Your task to perform on an android device: uninstall "Chime – Mobile Banking" Image 0: 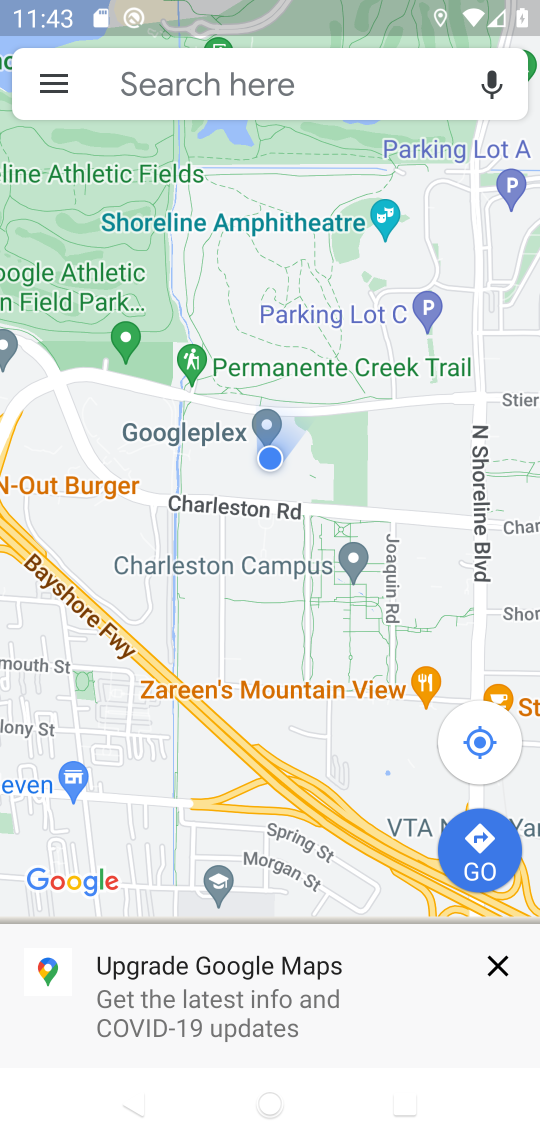
Step 0: press home button
Your task to perform on an android device: uninstall "Chime – Mobile Banking" Image 1: 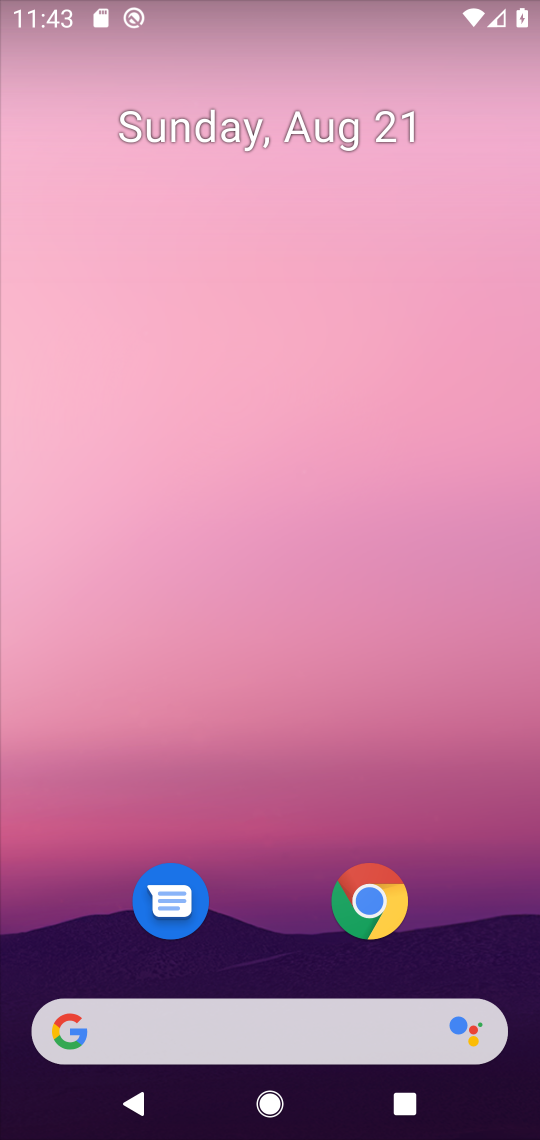
Step 1: drag from (264, 963) to (349, 102)
Your task to perform on an android device: uninstall "Chime – Mobile Banking" Image 2: 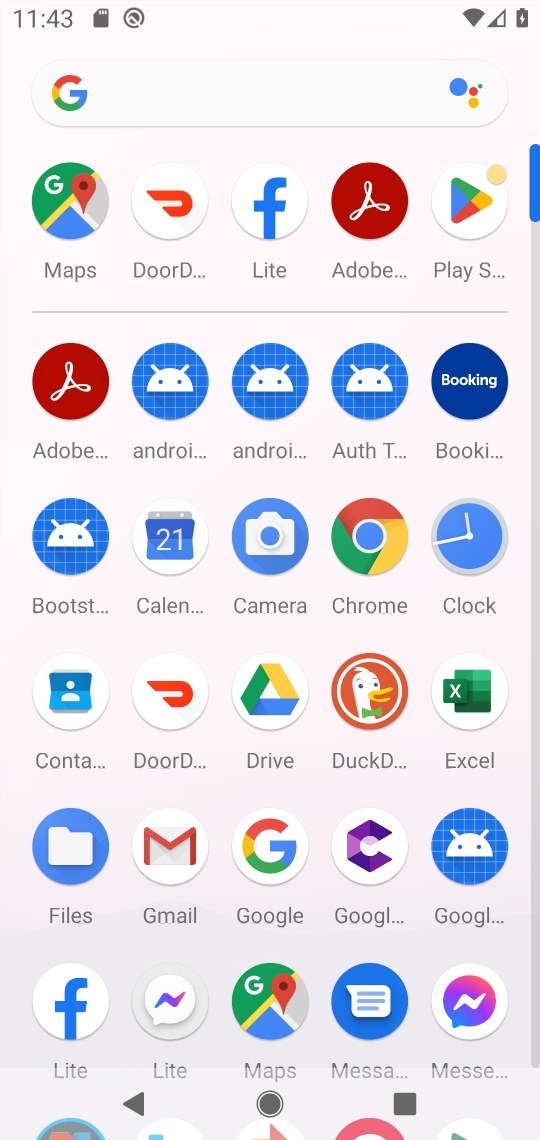
Step 2: click (446, 182)
Your task to perform on an android device: uninstall "Chime – Mobile Banking" Image 3: 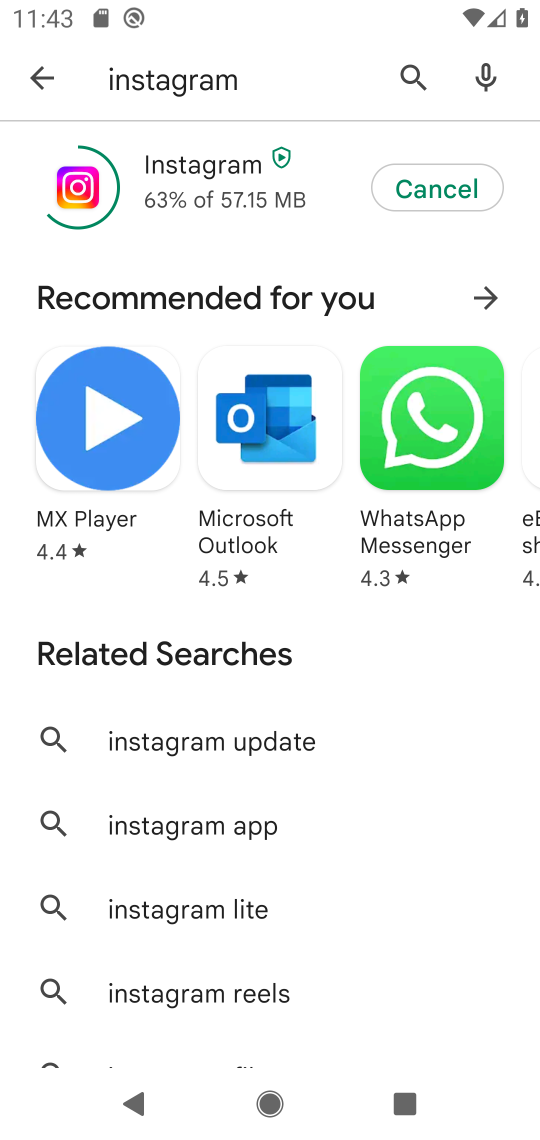
Step 3: click (414, 97)
Your task to perform on an android device: uninstall "Chime – Mobile Banking" Image 4: 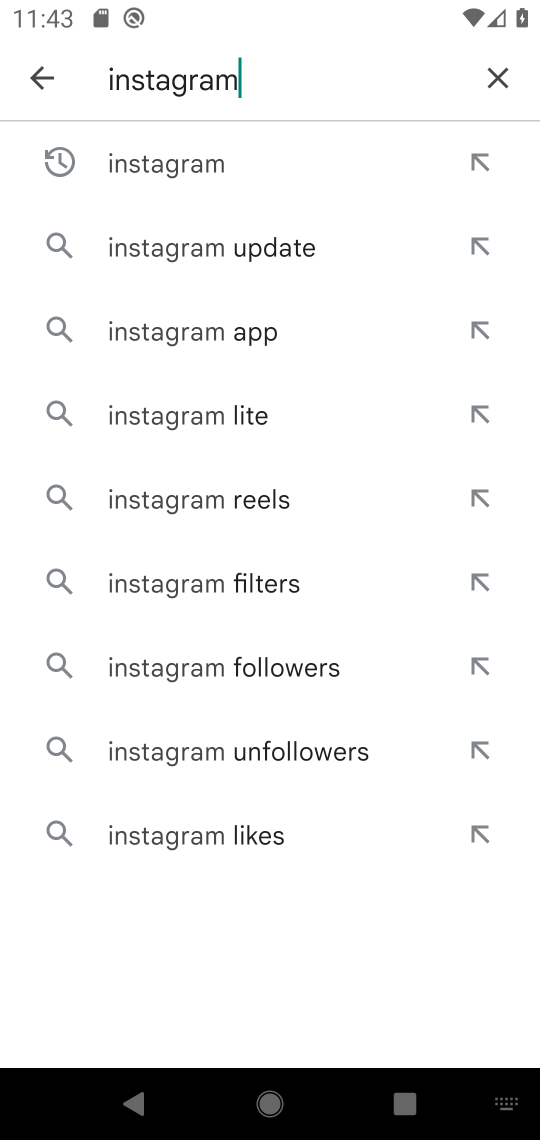
Step 4: click (481, 94)
Your task to perform on an android device: uninstall "Chime – Mobile Banking" Image 5: 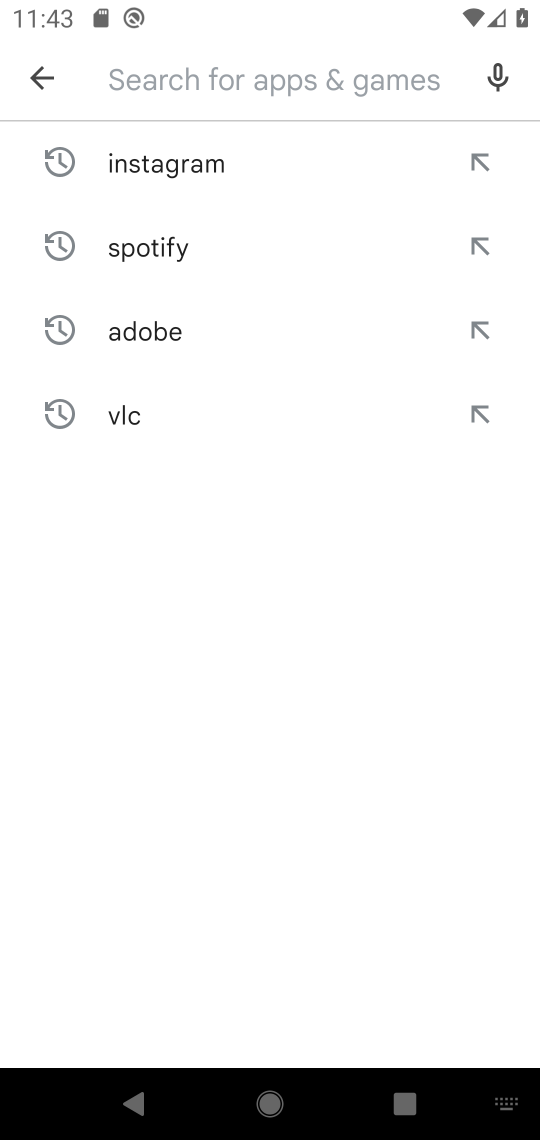
Step 5: type "chime"
Your task to perform on an android device: uninstall "Chime – Mobile Banking" Image 6: 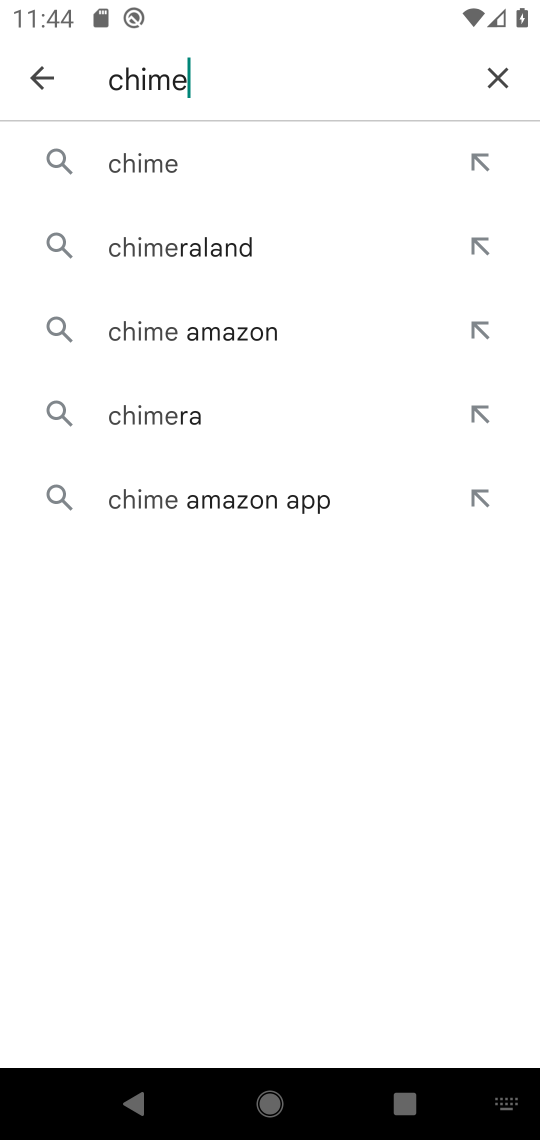
Step 6: click (164, 155)
Your task to perform on an android device: uninstall "Chime – Mobile Banking" Image 7: 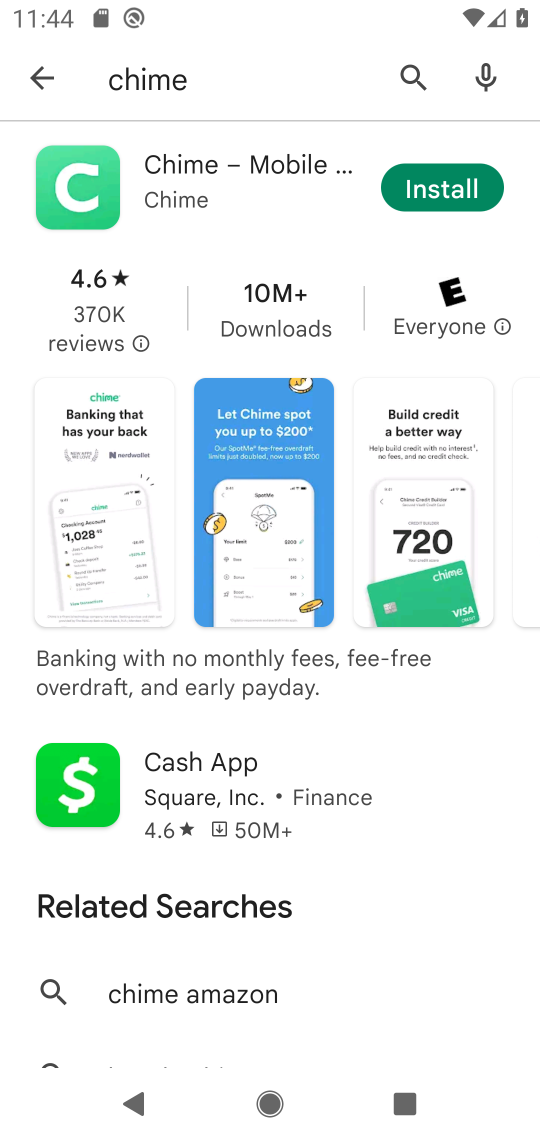
Step 7: click (457, 183)
Your task to perform on an android device: uninstall "Chime – Mobile Banking" Image 8: 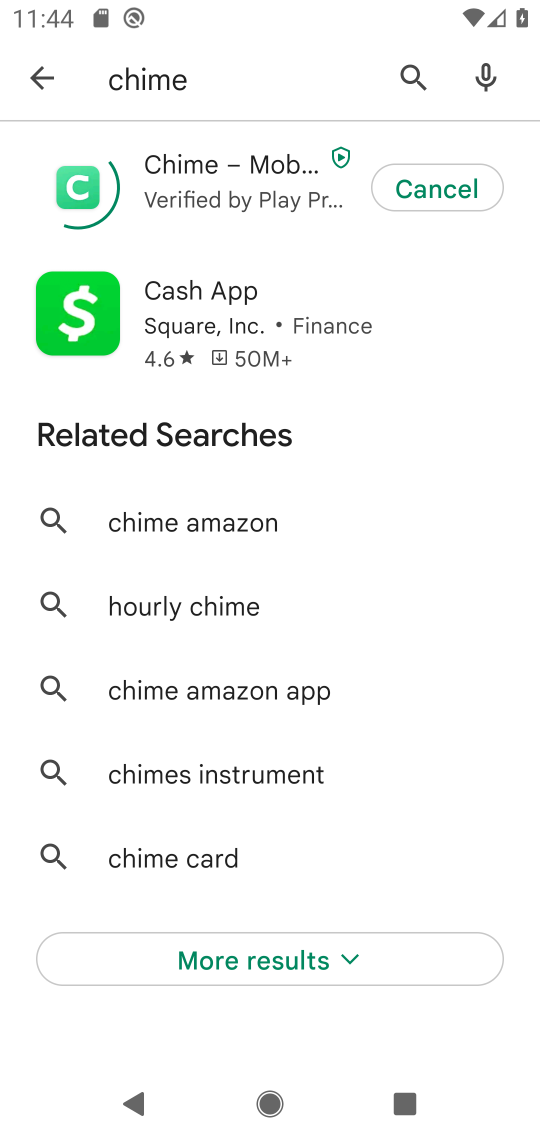
Step 8: task complete